Your task to perform on an android device: Go to Google maps Image 0: 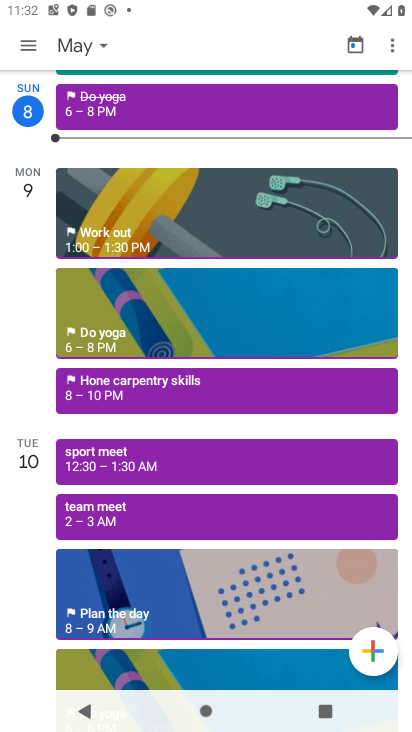
Step 0: press back button
Your task to perform on an android device: Go to Google maps Image 1: 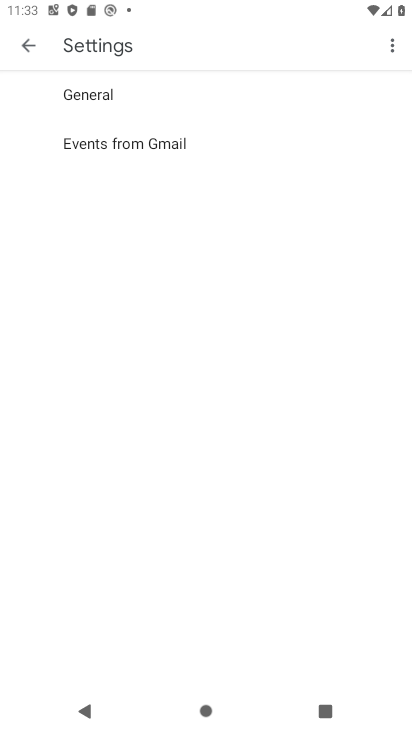
Step 1: click (36, 43)
Your task to perform on an android device: Go to Google maps Image 2: 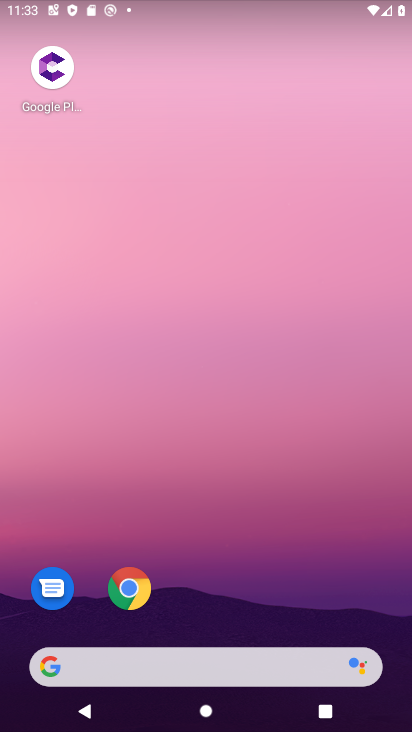
Step 2: drag from (193, 600) to (291, 30)
Your task to perform on an android device: Go to Google maps Image 3: 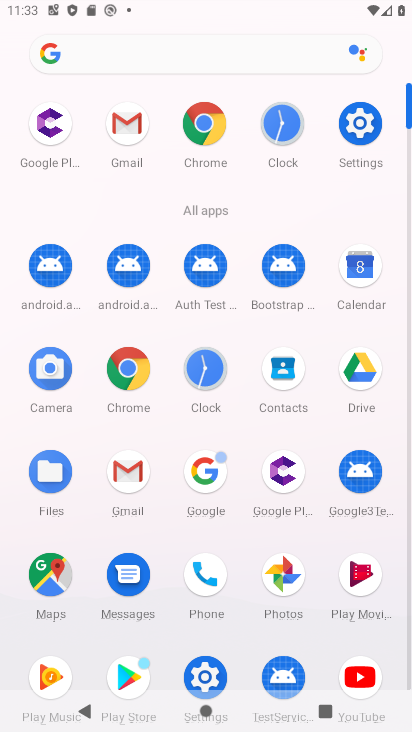
Step 3: click (54, 561)
Your task to perform on an android device: Go to Google maps Image 4: 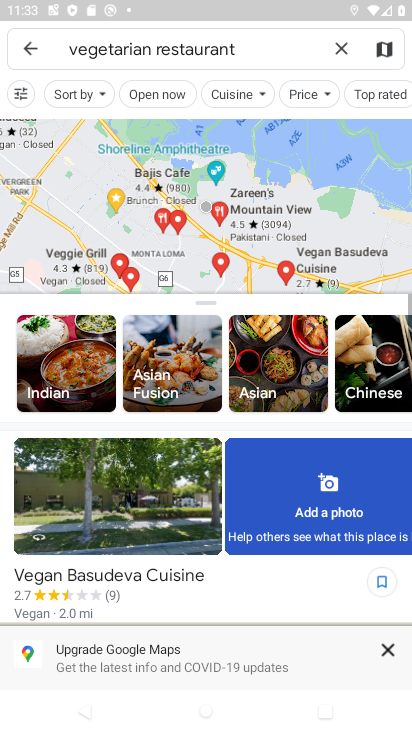
Step 4: task complete